Your task to perform on an android device: Open network settings Image 0: 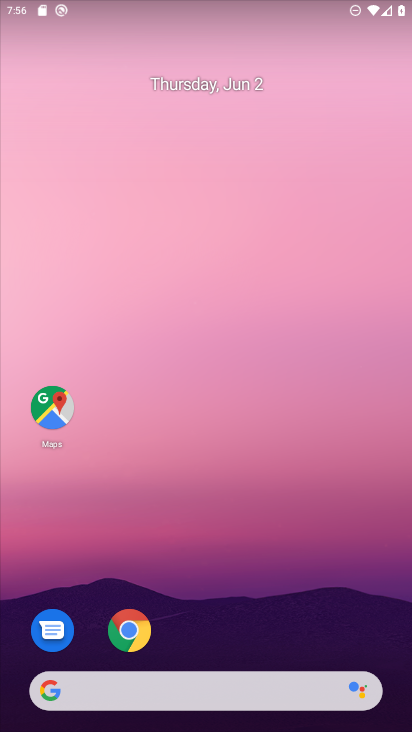
Step 0: drag from (140, 704) to (196, 34)
Your task to perform on an android device: Open network settings Image 1: 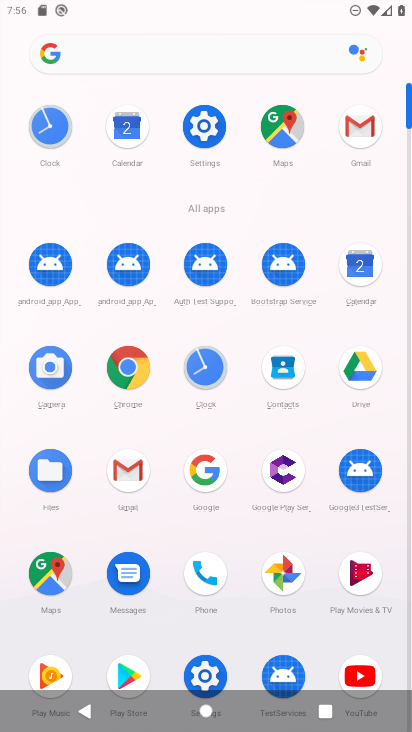
Step 1: click (192, 144)
Your task to perform on an android device: Open network settings Image 2: 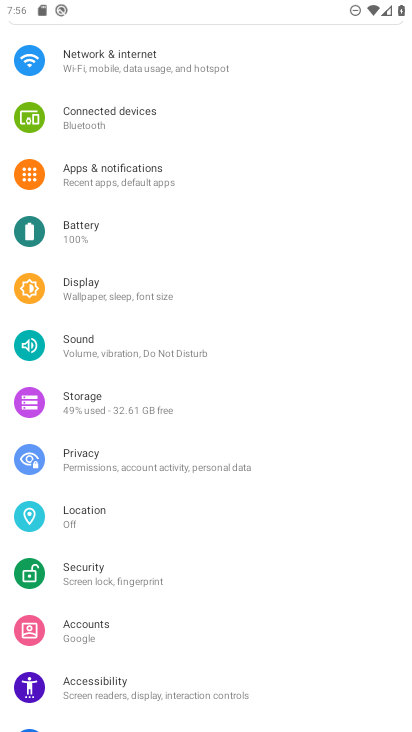
Step 2: click (231, 73)
Your task to perform on an android device: Open network settings Image 3: 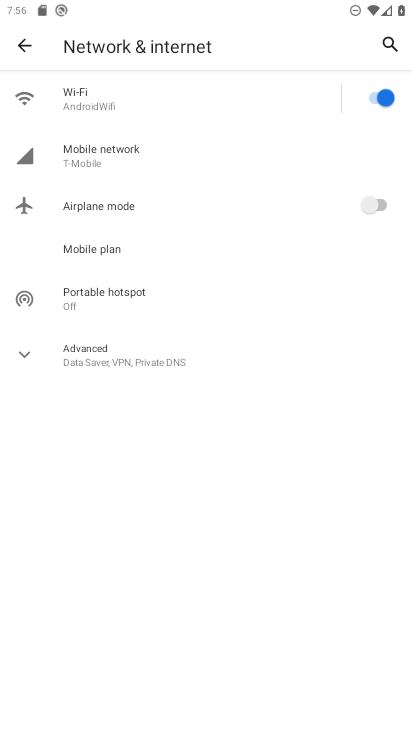
Step 3: click (111, 168)
Your task to perform on an android device: Open network settings Image 4: 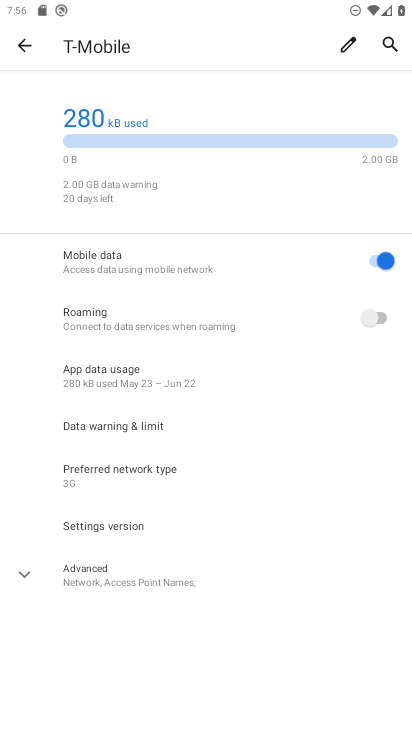
Step 4: click (122, 581)
Your task to perform on an android device: Open network settings Image 5: 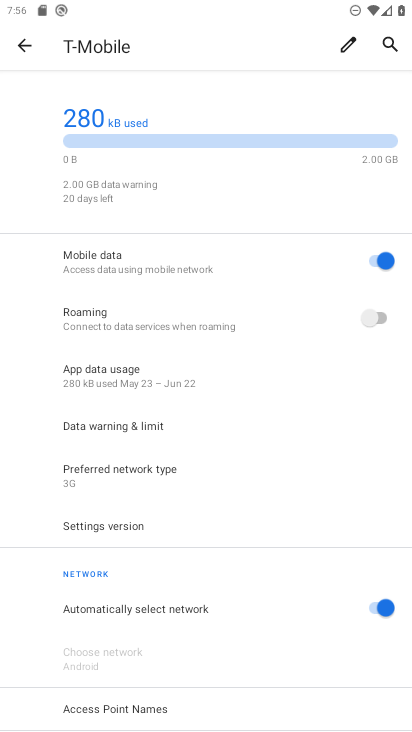
Step 5: task complete